Your task to perform on an android device: turn on notifications settings in the gmail app Image 0: 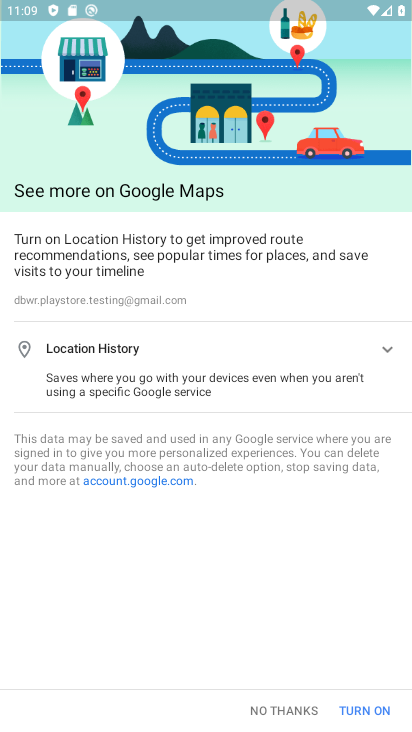
Step 0: press home button
Your task to perform on an android device: turn on notifications settings in the gmail app Image 1: 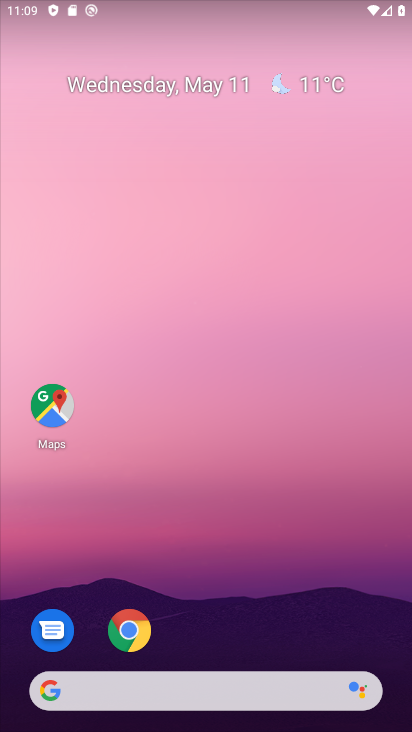
Step 1: drag from (189, 553) to (274, 170)
Your task to perform on an android device: turn on notifications settings in the gmail app Image 2: 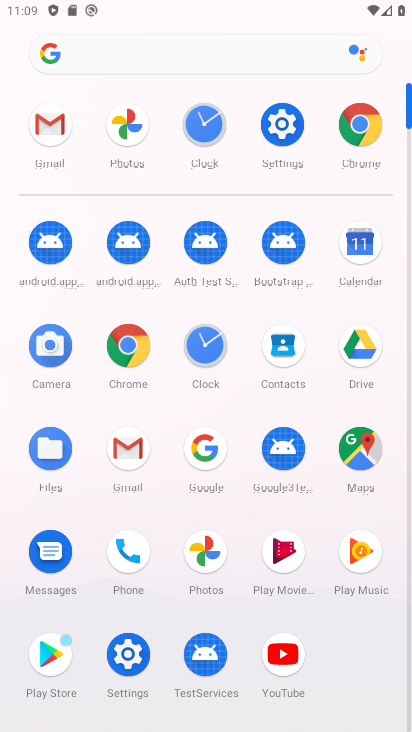
Step 2: click (51, 114)
Your task to perform on an android device: turn on notifications settings in the gmail app Image 3: 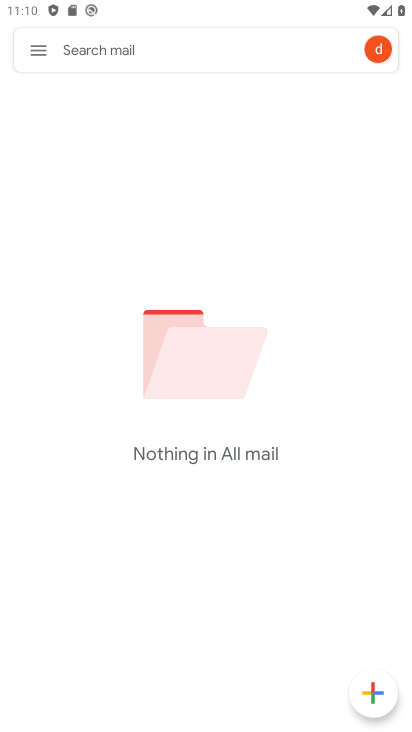
Step 3: click (33, 50)
Your task to perform on an android device: turn on notifications settings in the gmail app Image 4: 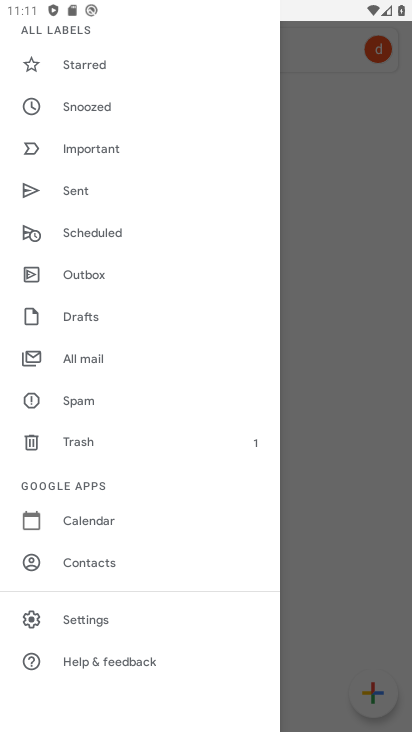
Step 4: click (70, 619)
Your task to perform on an android device: turn on notifications settings in the gmail app Image 5: 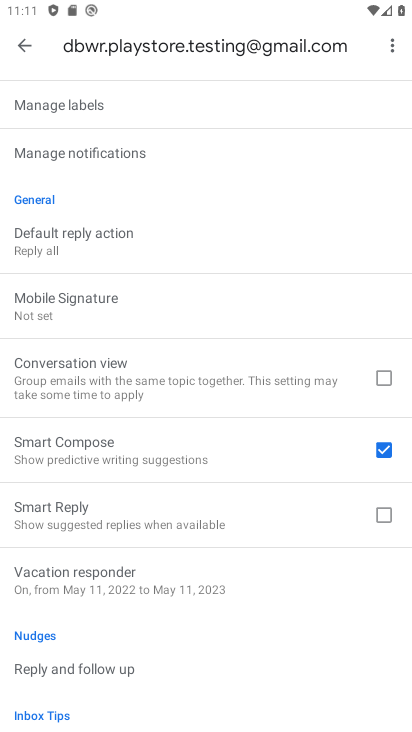
Step 5: click (101, 154)
Your task to perform on an android device: turn on notifications settings in the gmail app Image 6: 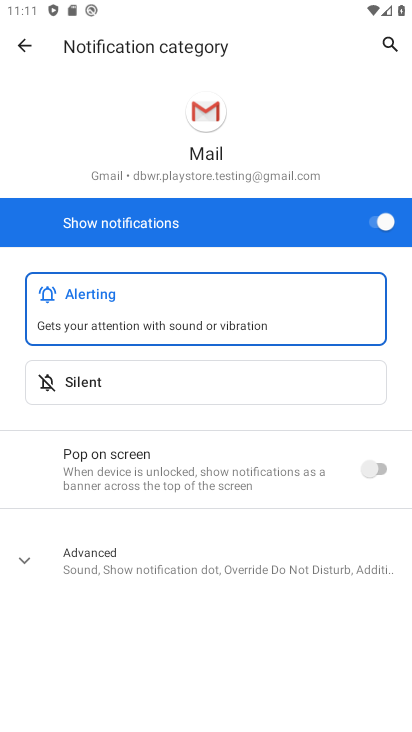
Step 6: task complete